Your task to perform on an android device: check out phone information Image 0: 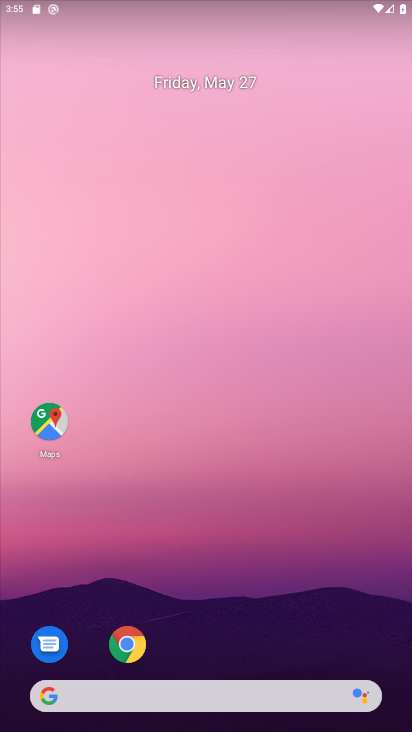
Step 0: drag from (241, 462) to (162, 31)
Your task to perform on an android device: check out phone information Image 1: 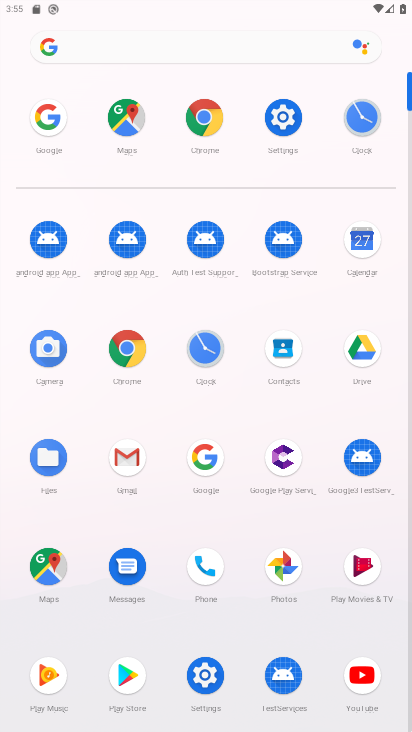
Step 1: click (283, 115)
Your task to perform on an android device: check out phone information Image 2: 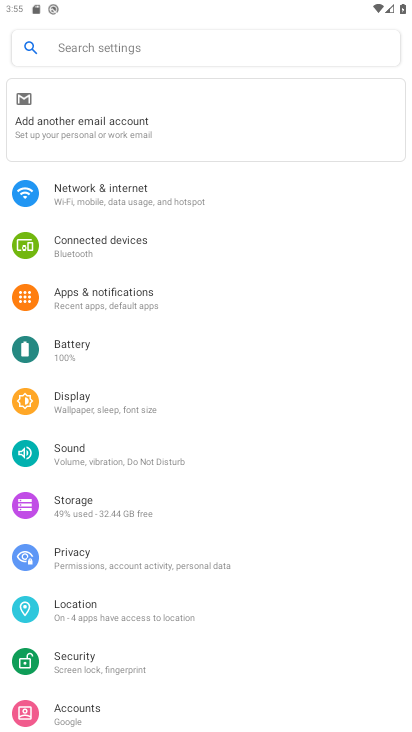
Step 2: drag from (244, 685) to (143, 84)
Your task to perform on an android device: check out phone information Image 3: 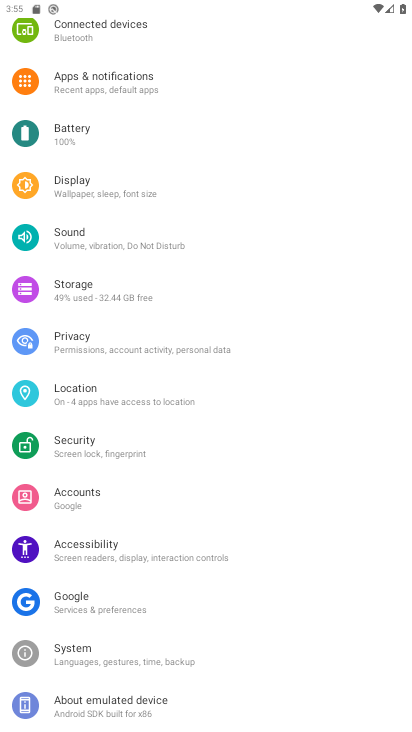
Step 3: click (199, 709)
Your task to perform on an android device: check out phone information Image 4: 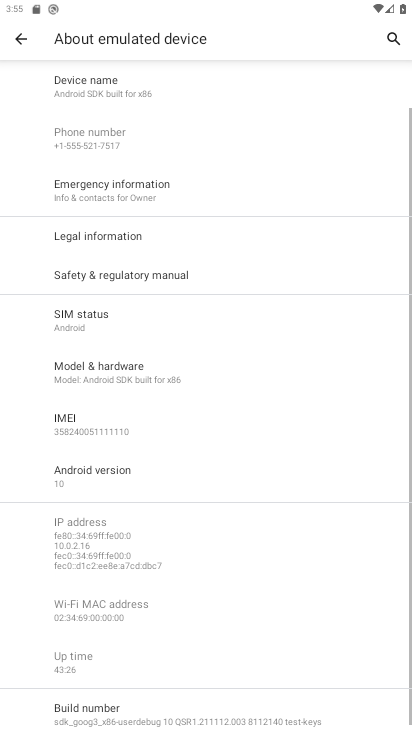
Step 4: task complete